Your task to perform on an android device: Go to Maps Image 0: 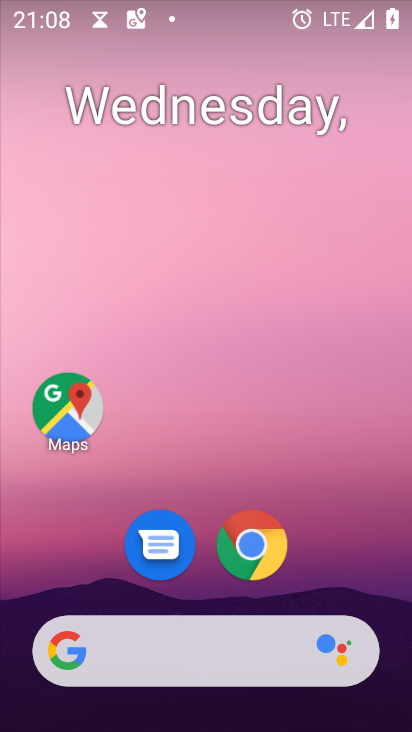
Step 0: press home button
Your task to perform on an android device: Go to Maps Image 1: 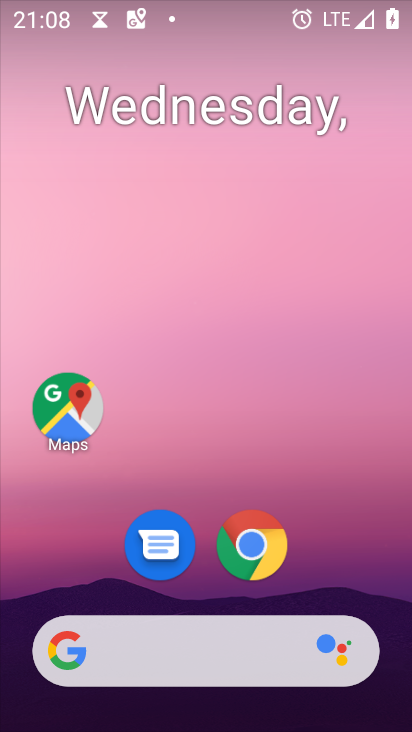
Step 1: click (72, 430)
Your task to perform on an android device: Go to Maps Image 2: 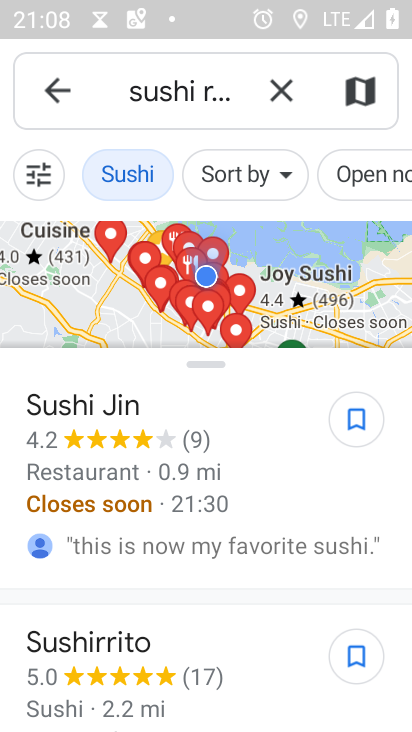
Step 2: click (56, 104)
Your task to perform on an android device: Go to Maps Image 3: 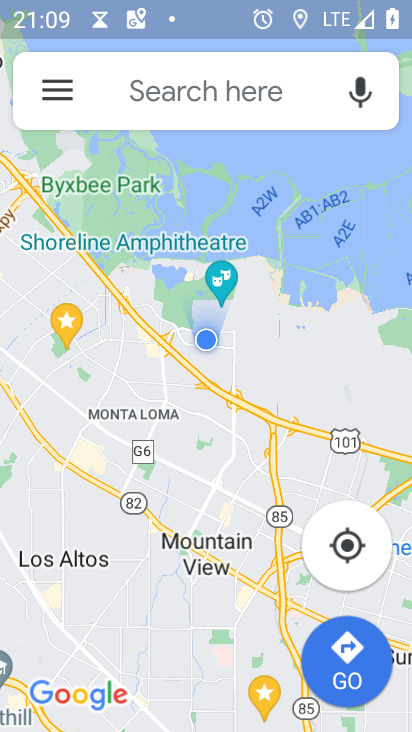
Step 3: task complete